Your task to perform on an android device: Open Google Maps Image 0: 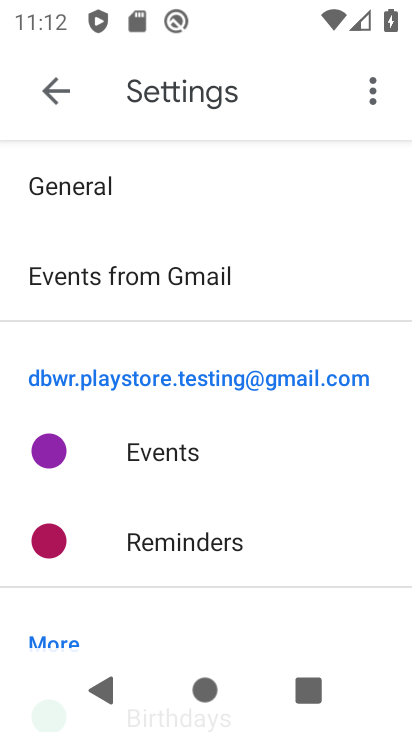
Step 0: press home button
Your task to perform on an android device: Open Google Maps Image 1: 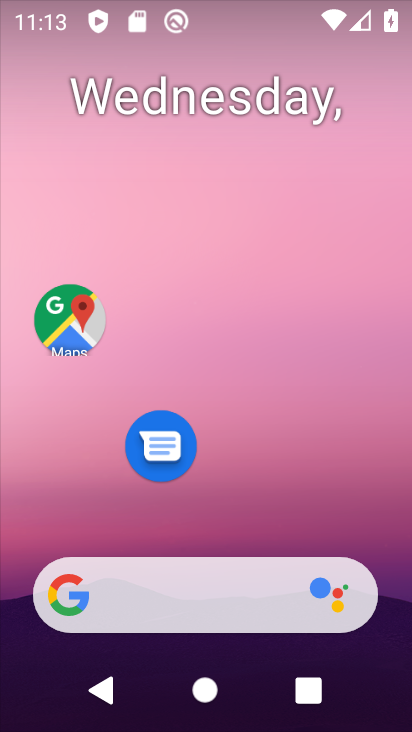
Step 1: click (41, 320)
Your task to perform on an android device: Open Google Maps Image 2: 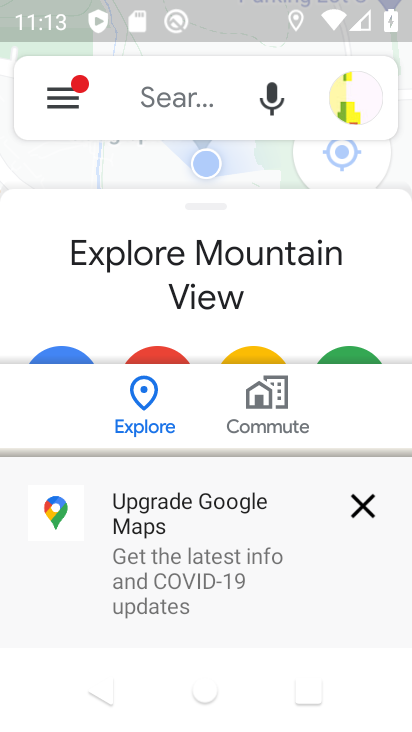
Step 2: click (359, 507)
Your task to perform on an android device: Open Google Maps Image 3: 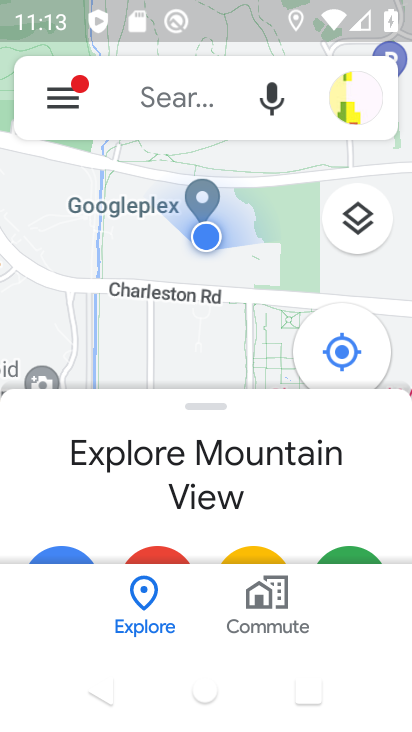
Step 3: task complete